Your task to perform on an android device: turn on airplane mode Image 0: 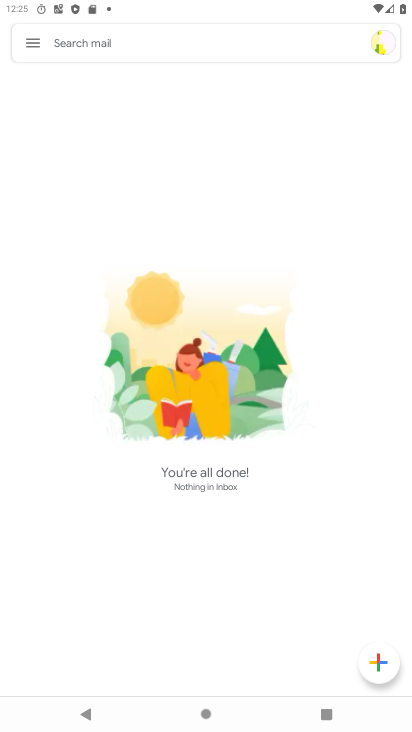
Step 0: press home button
Your task to perform on an android device: turn on airplane mode Image 1: 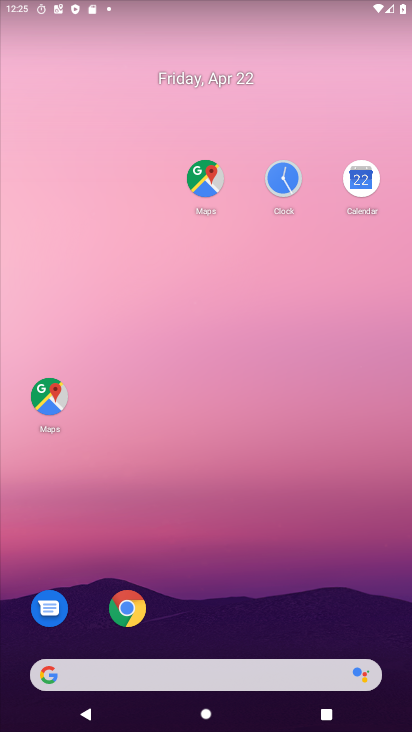
Step 1: drag from (262, 602) to (106, 54)
Your task to perform on an android device: turn on airplane mode Image 2: 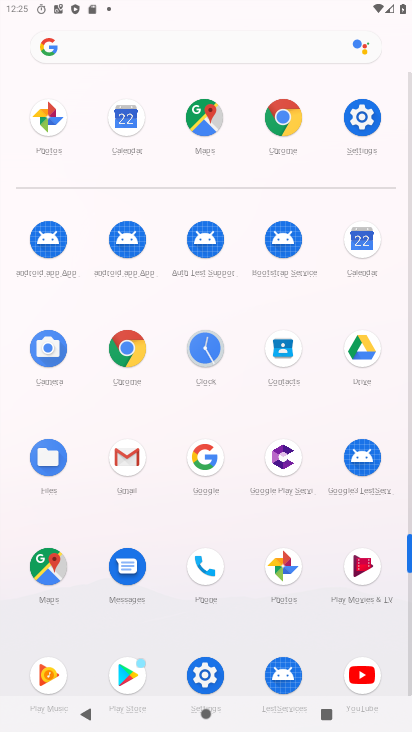
Step 2: click (369, 116)
Your task to perform on an android device: turn on airplane mode Image 3: 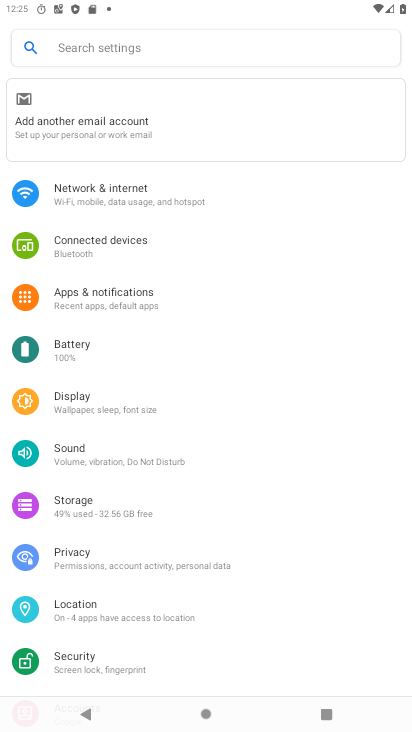
Step 3: click (118, 202)
Your task to perform on an android device: turn on airplane mode Image 4: 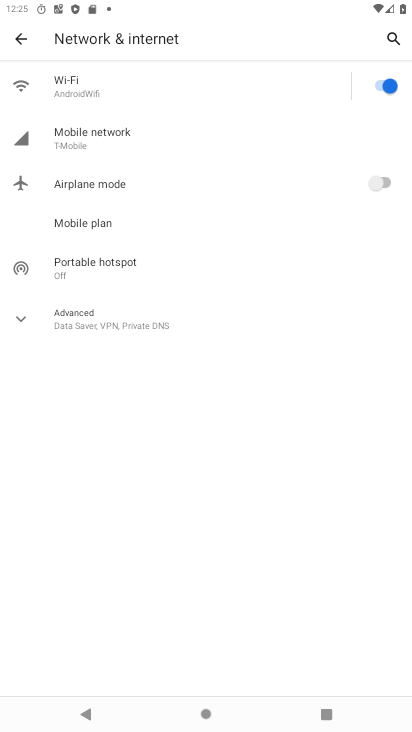
Step 4: click (372, 182)
Your task to perform on an android device: turn on airplane mode Image 5: 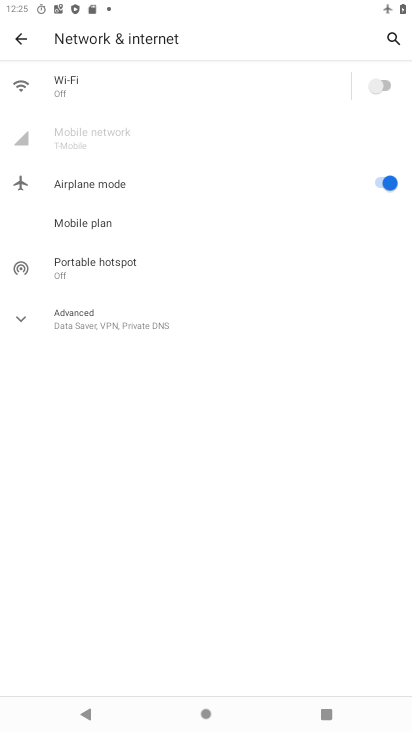
Step 5: task complete